Your task to perform on an android device: find which apps use the phone's location Image 0: 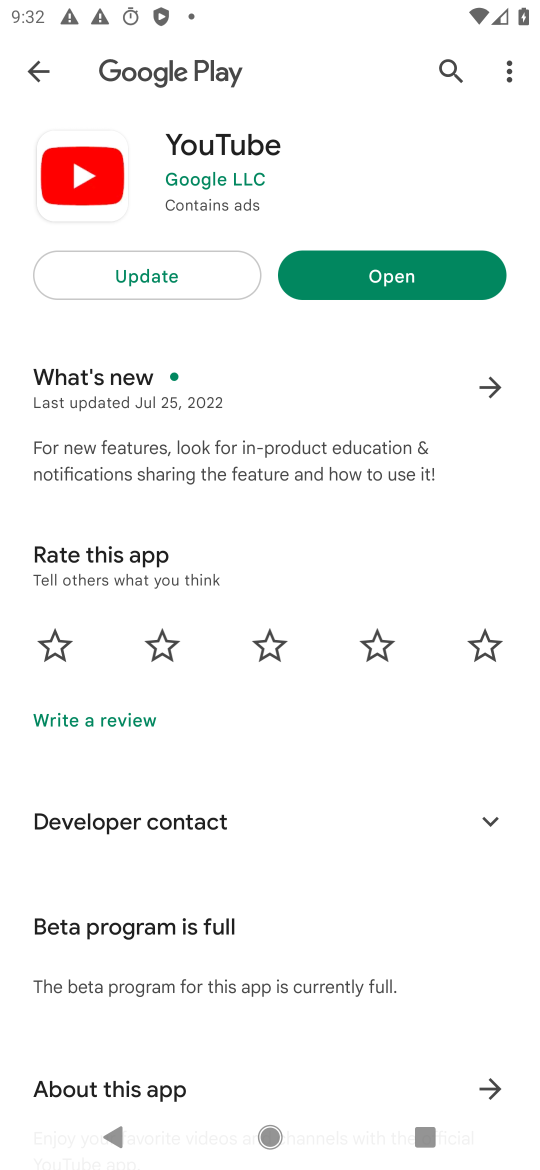
Step 0: press home button
Your task to perform on an android device: find which apps use the phone's location Image 1: 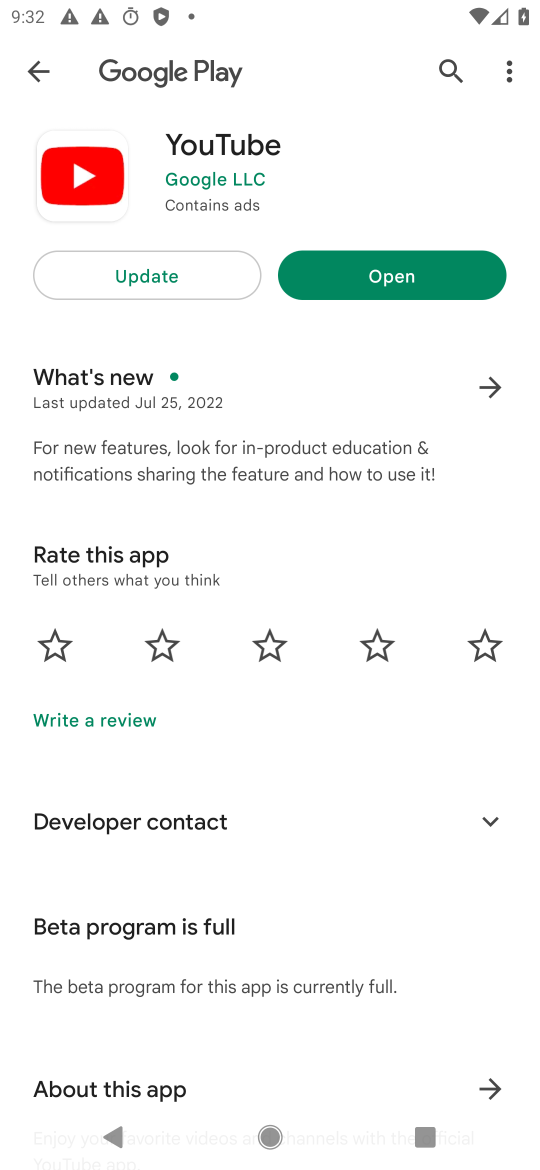
Step 1: drag from (238, 439) to (295, 97)
Your task to perform on an android device: find which apps use the phone's location Image 2: 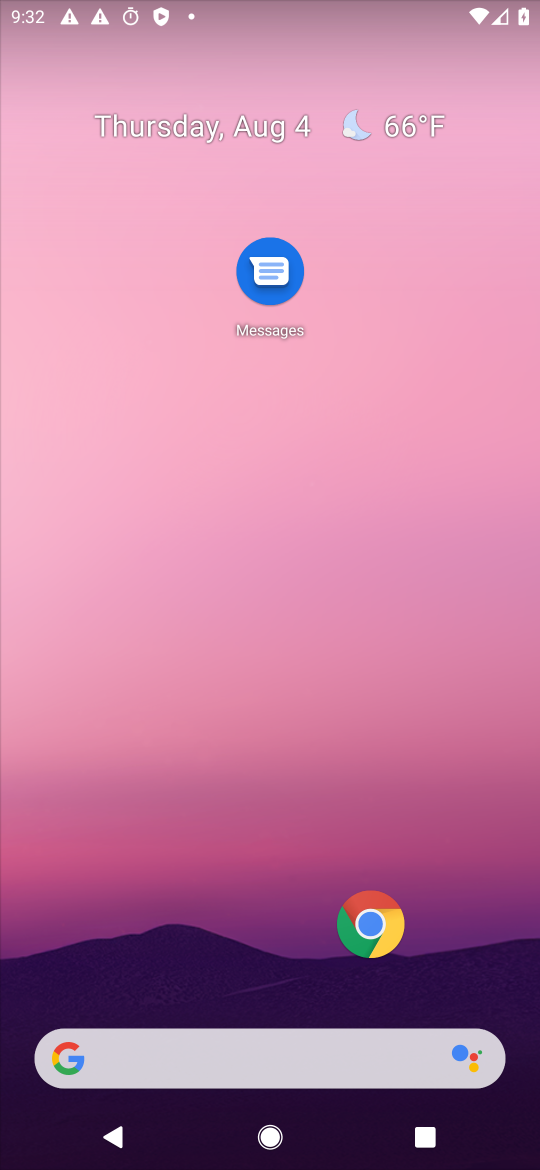
Step 2: drag from (234, 950) to (319, 303)
Your task to perform on an android device: find which apps use the phone's location Image 3: 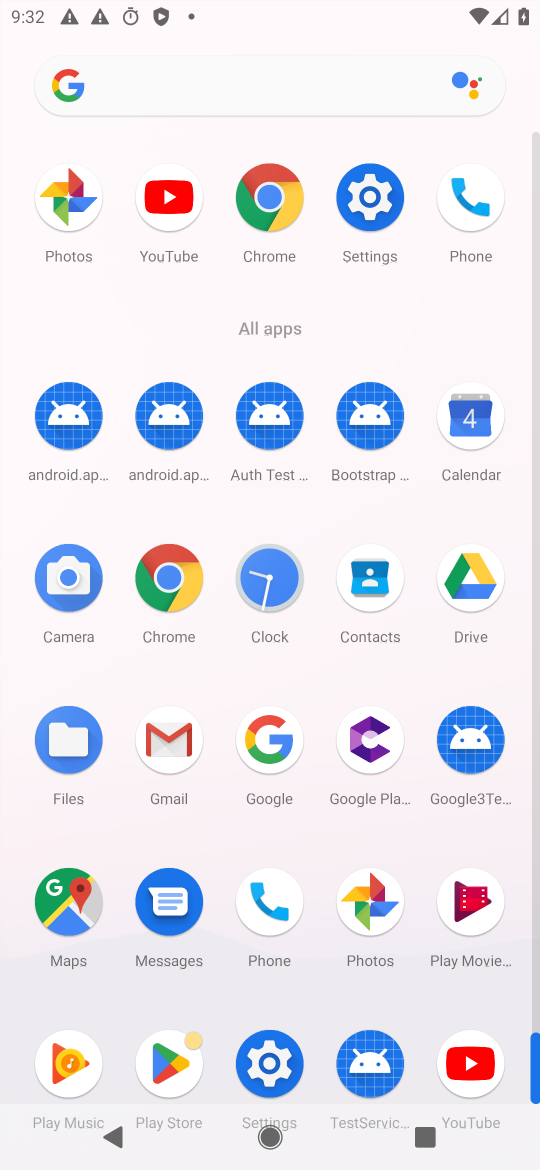
Step 3: click (259, 1070)
Your task to perform on an android device: find which apps use the phone's location Image 4: 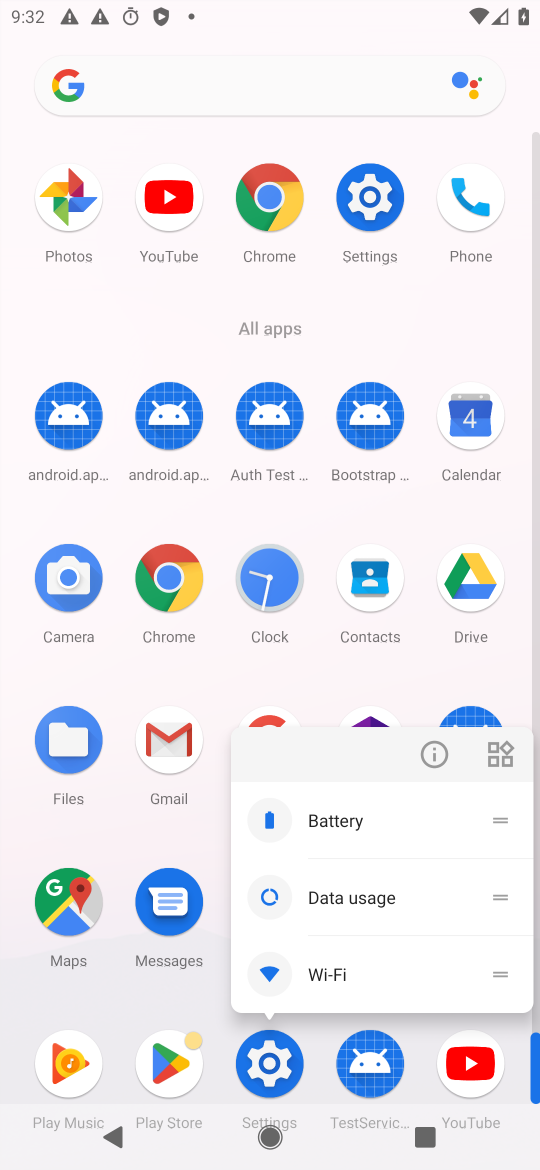
Step 4: click (433, 747)
Your task to perform on an android device: find which apps use the phone's location Image 5: 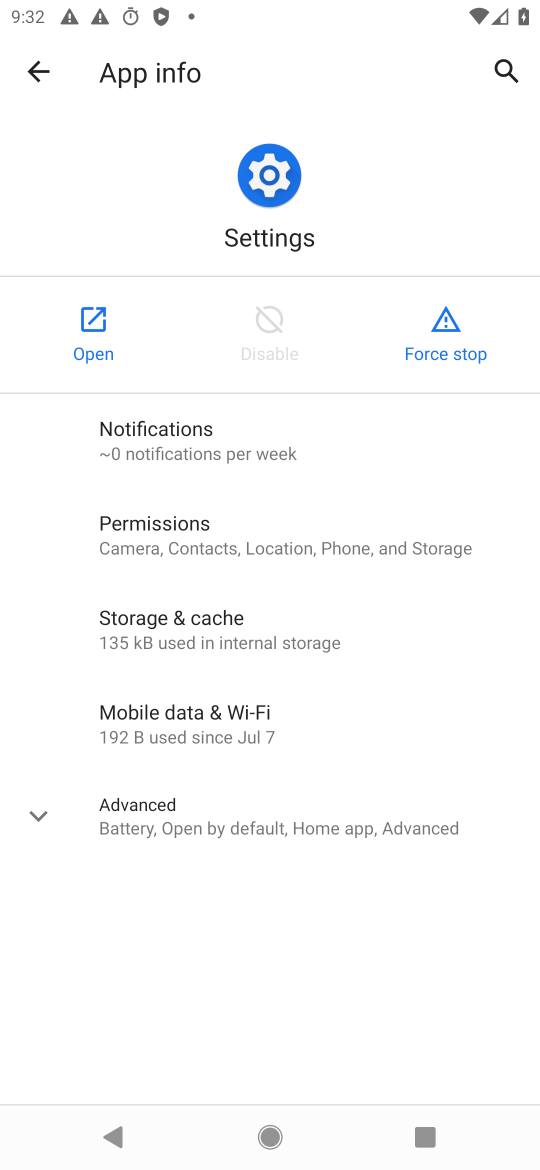
Step 5: click (85, 312)
Your task to perform on an android device: find which apps use the phone's location Image 6: 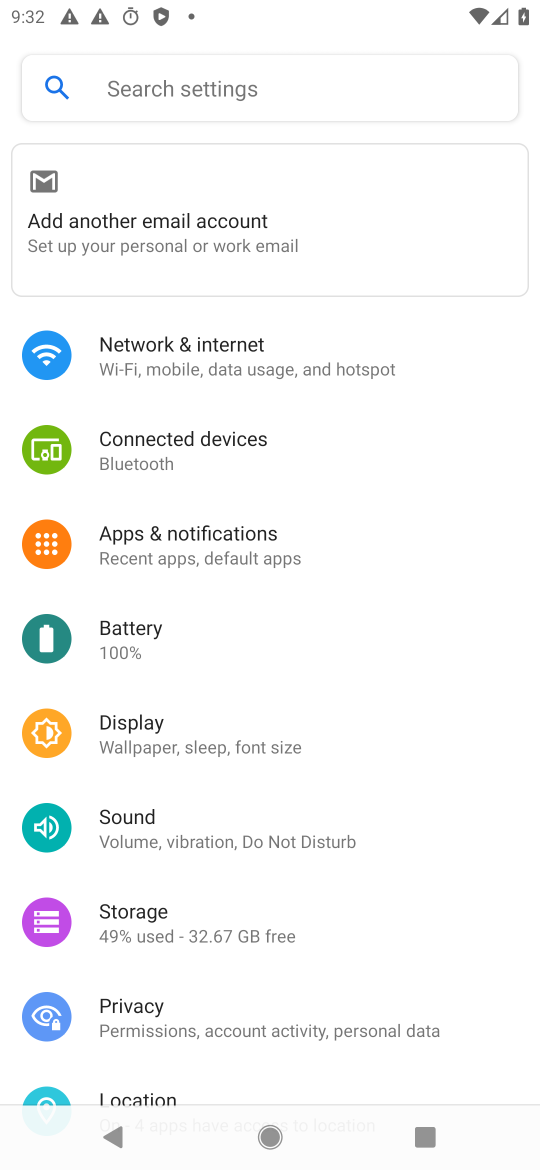
Step 6: drag from (274, 724) to (295, 505)
Your task to perform on an android device: find which apps use the phone's location Image 7: 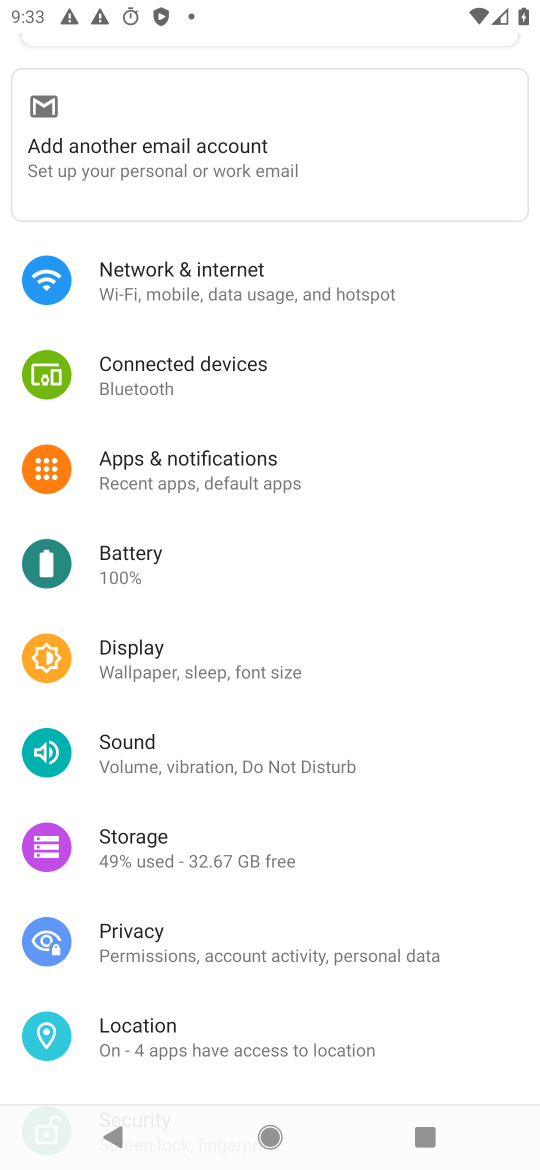
Step 7: click (153, 1040)
Your task to perform on an android device: find which apps use the phone's location Image 8: 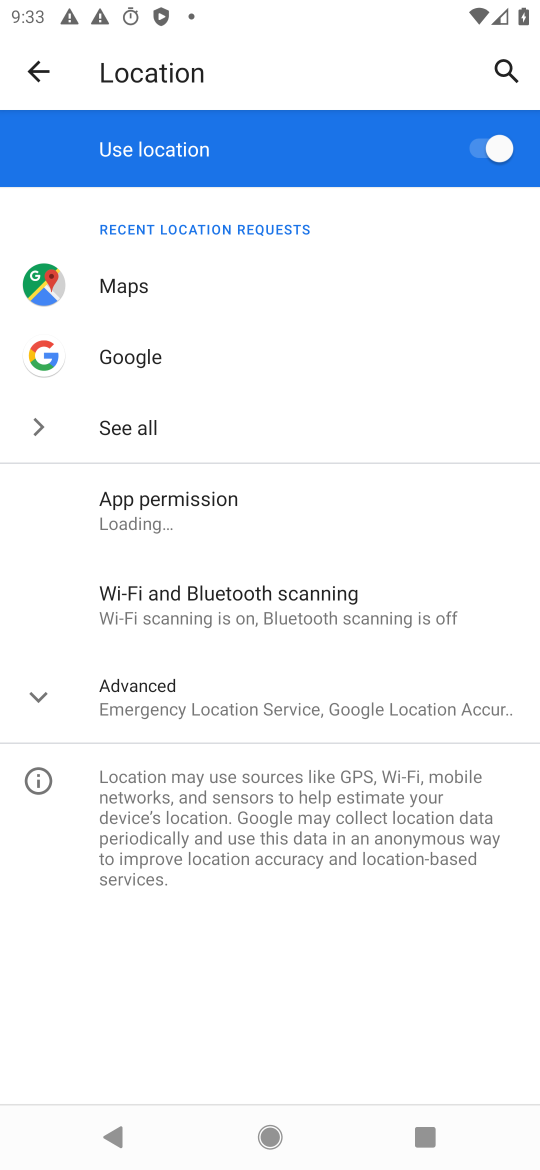
Step 8: click (181, 506)
Your task to perform on an android device: find which apps use the phone's location Image 9: 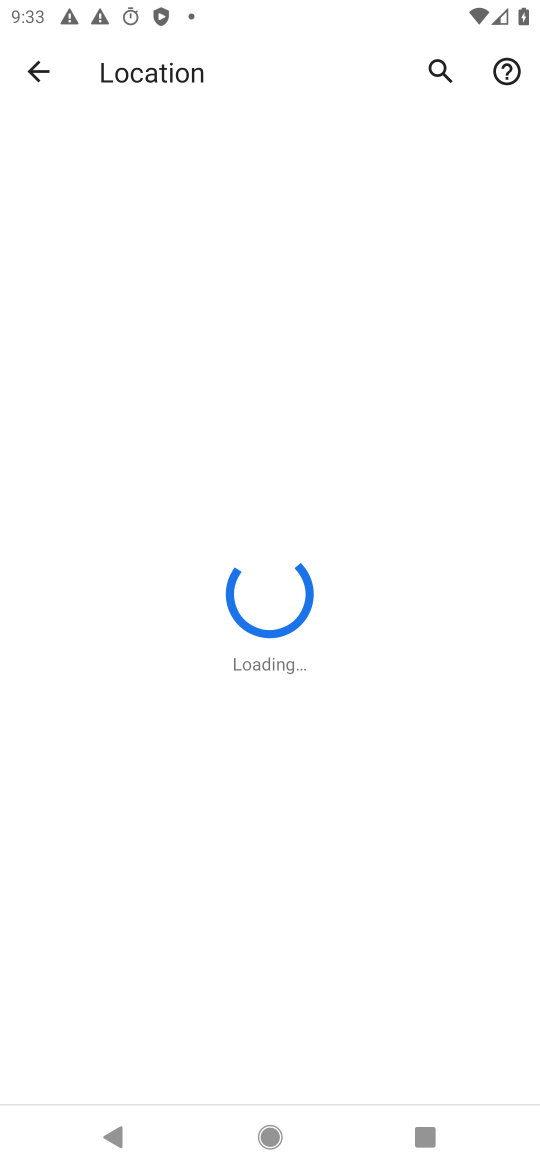
Step 9: task complete